Your task to perform on an android device: open sync settings in chrome Image 0: 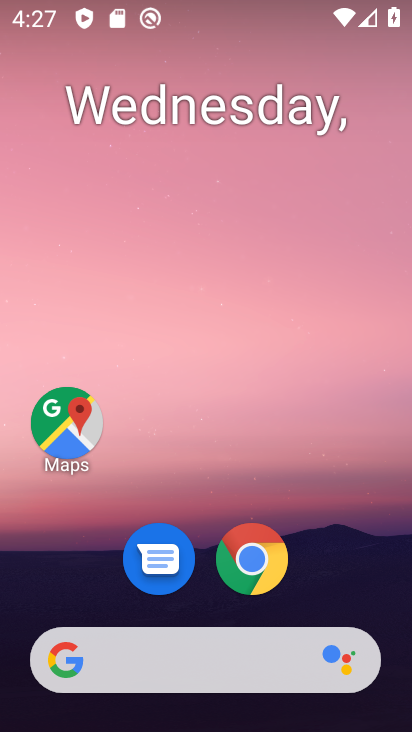
Step 0: click (241, 556)
Your task to perform on an android device: open sync settings in chrome Image 1: 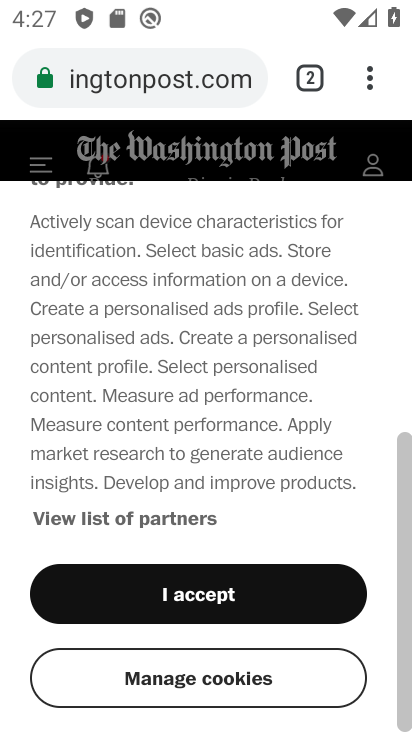
Step 1: click (360, 79)
Your task to perform on an android device: open sync settings in chrome Image 2: 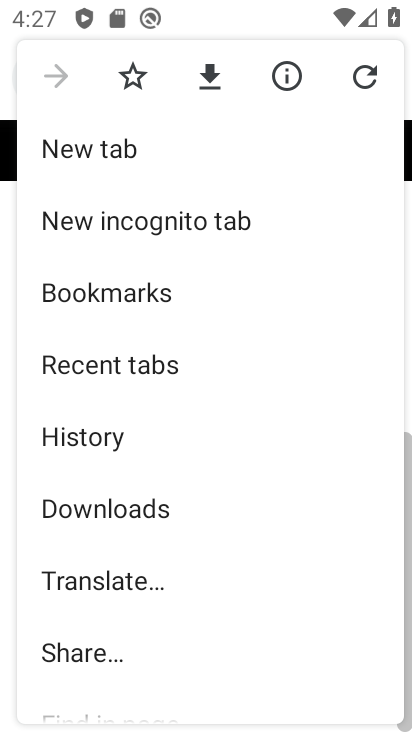
Step 2: drag from (196, 649) to (166, 263)
Your task to perform on an android device: open sync settings in chrome Image 3: 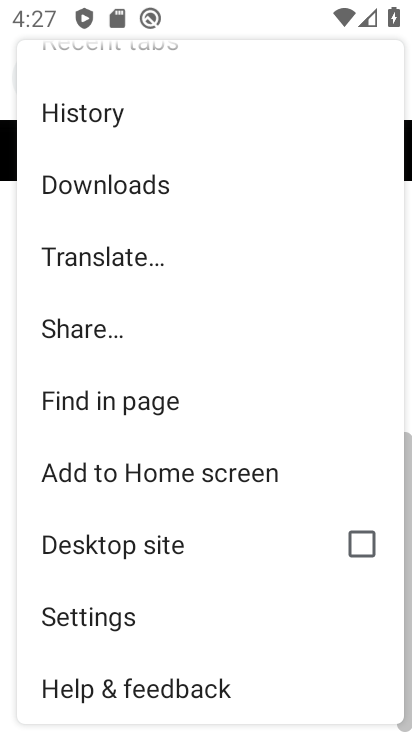
Step 3: click (165, 623)
Your task to perform on an android device: open sync settings in chrome Image 4: 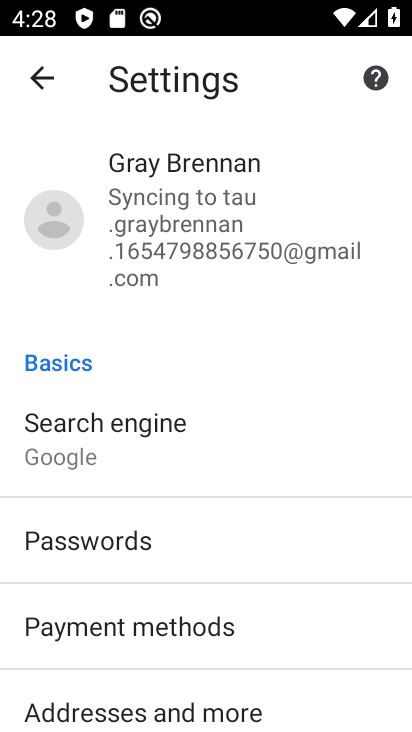
Step 4: click (232, 207)
Your task to perform on an android device: open sync settings in chrome Image 5: 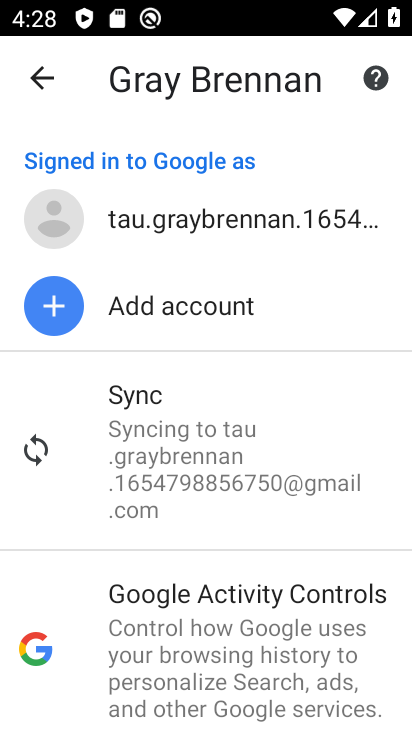
Step 5: click (230, 475)
Your task to perform on an android device: open sync settings in chrome Image 6: 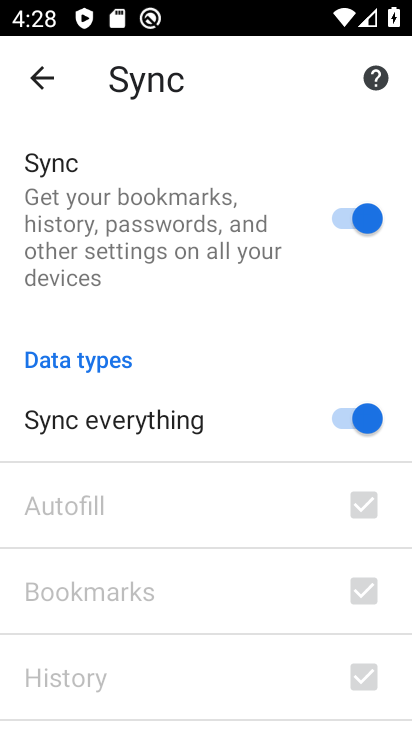
Step 6: task complete